Your task to perform on an android device: Search for Mexican restaurants on Maps Image 0: 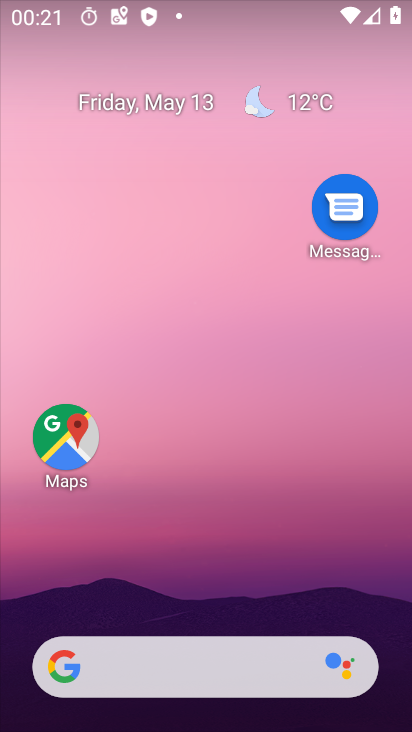
Step 0: click (43, 429)
Your task to perform on an android device: Search for Mexican restaurants on Maps Image 1: 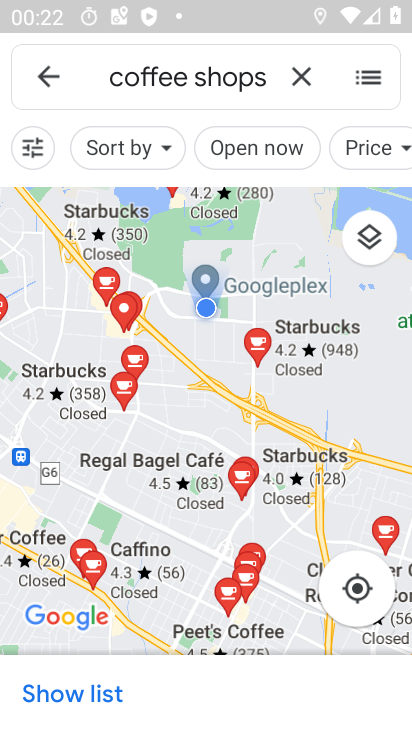
Step 1: click (293, 83)
Your task to perform on an android device: Search for Mexican restaurants on Maps Image 2: 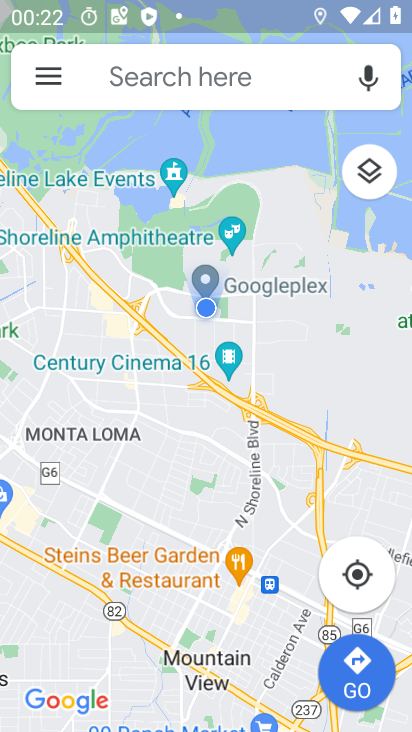
Step 2: click (167, 77)
Your task to perform on an android device: Search for Mexican restaurants on Maps Image 3: 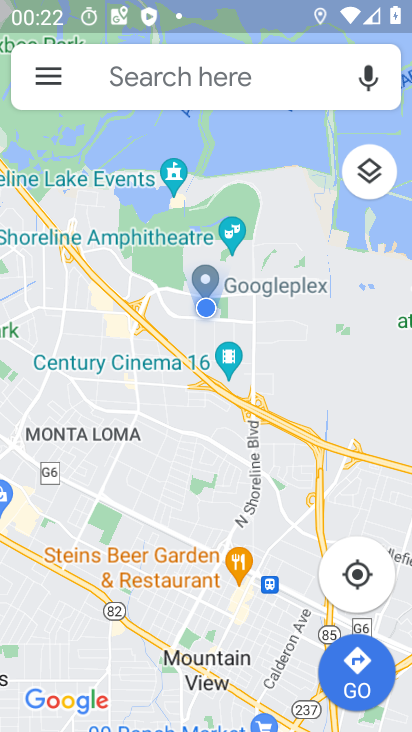
Step 3: click (167, 77)
Your task to perform on an android device: Search for Mexican restaurants on Maps Image 4: 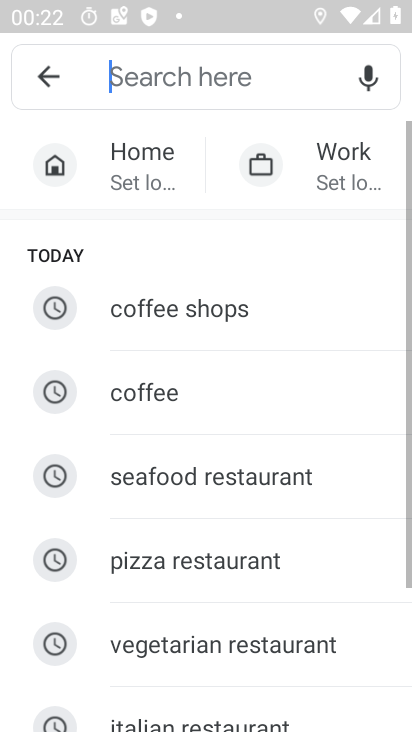
Step 4: click (167, 77)
Your task to perform on an android device: Search for Mexican restaurants on Maps Image 5: 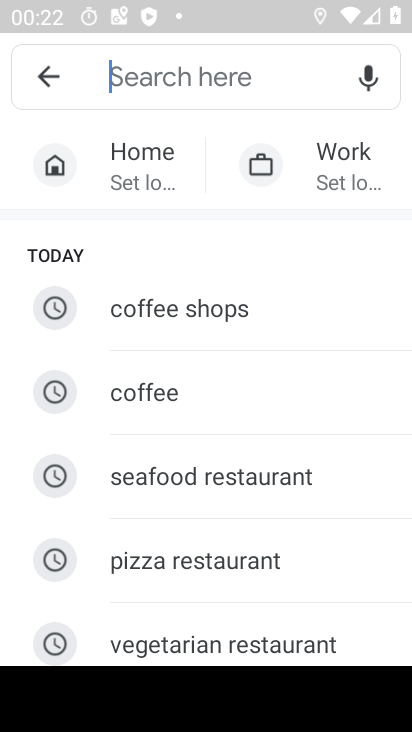
Step 5: type "Mexican restaurants "
Your task to perform on an android device: Search for Mexican restaurants on Maps Image 6: 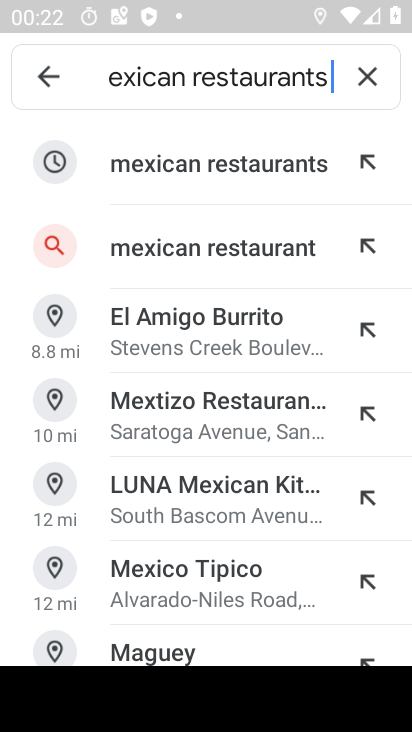
Step 6: click (189, 120)
Your task to perform on an android device: Search for Mexican restaurants on Maps Image 7: 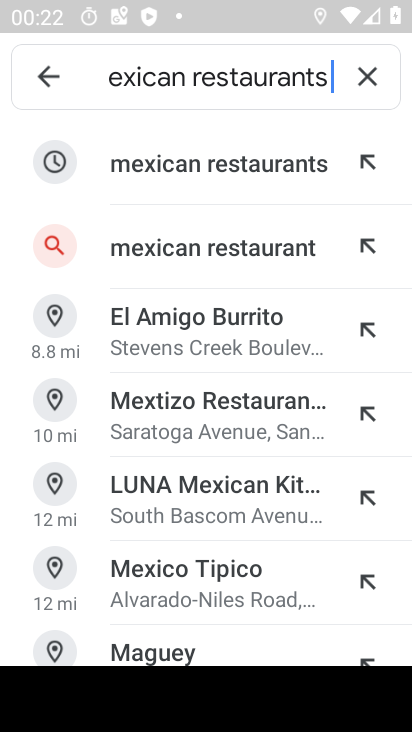
Step 7: click (284, 165)
Your task to perform on an android device: Search for Mexican restaurants on Maps Image 8: 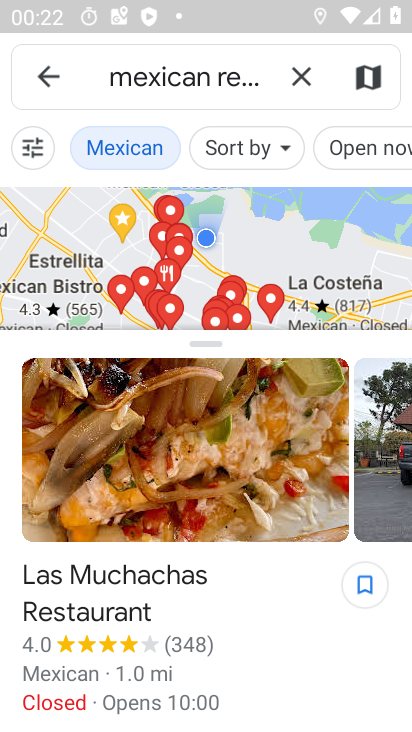
Step 8: task complete